Your task to perform on an android device: change notifications settings Image 0: 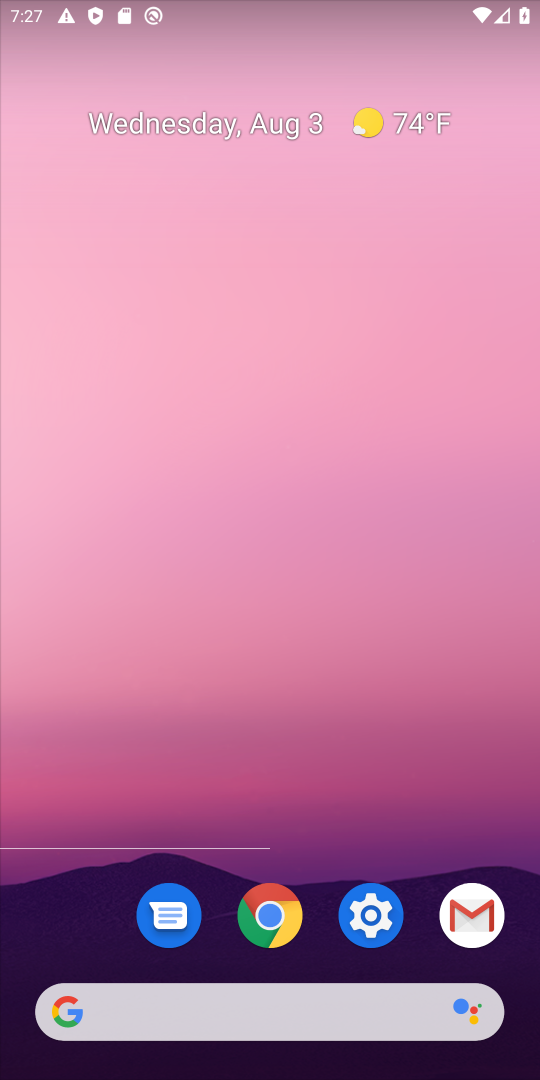
Step 0: press home button
Your task to perform on an android device: change notifications settings Image 1: 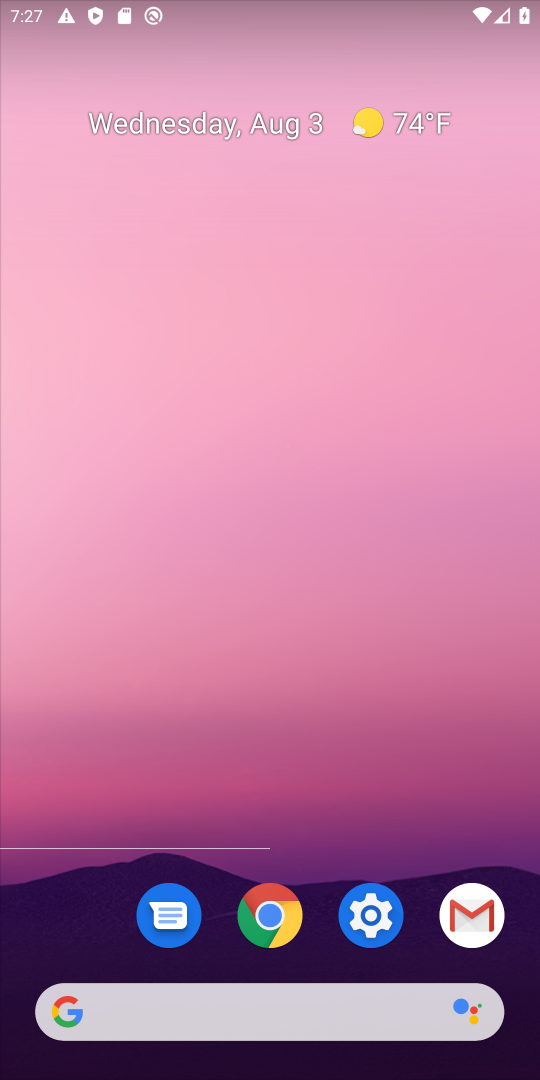
Step 1: click (359, 910)
Your task to perform on an android device: change notifications settings Image 2: 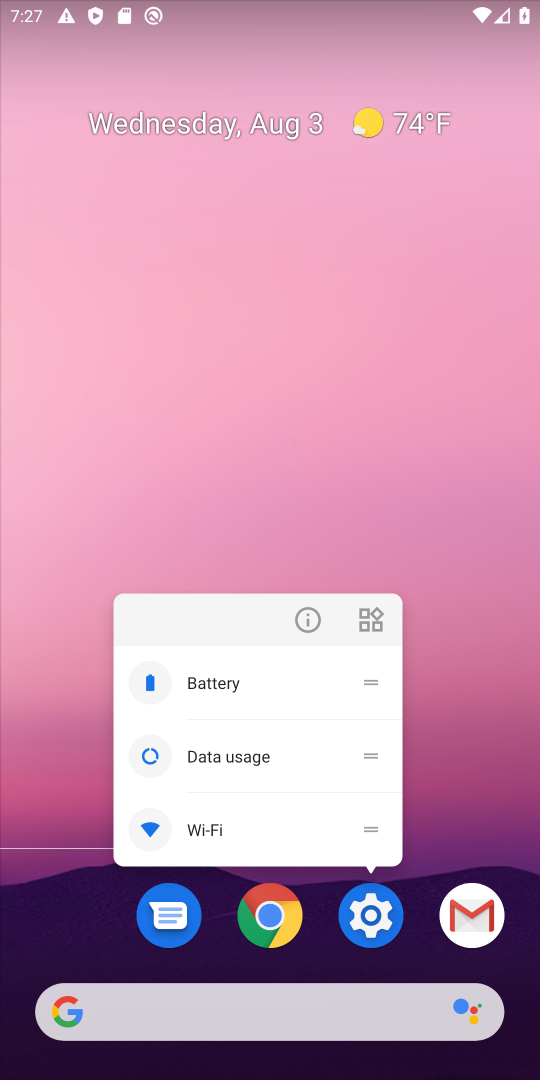
Step 2: drag from (302, 1040) to (310, 251)
Your task to perform on an android device: change notifications settings Image 3: 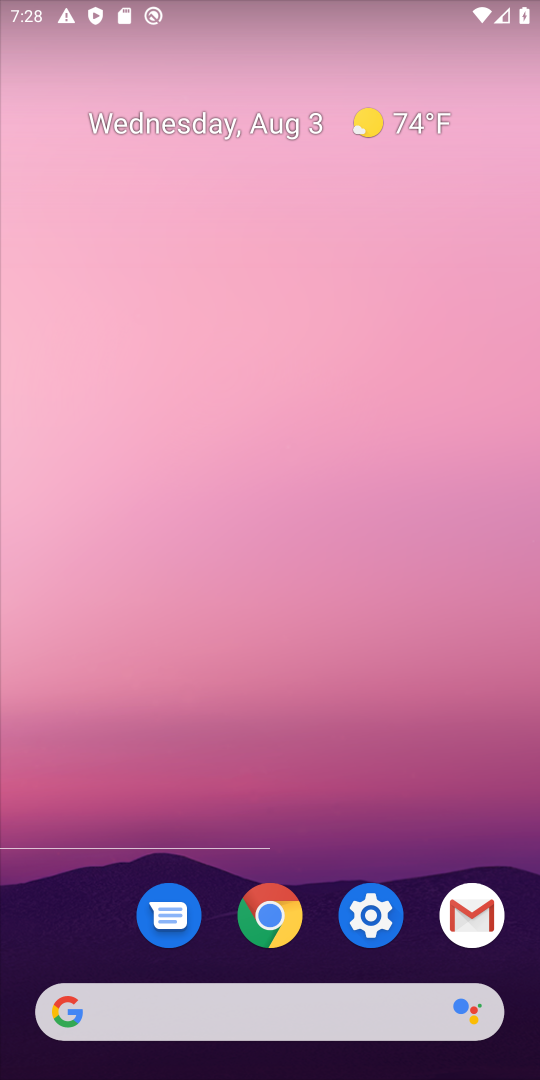
Step 3: drag from (328, 994) to (259, 137)
Your task to perform on an android device: change notifications settings Image 4: 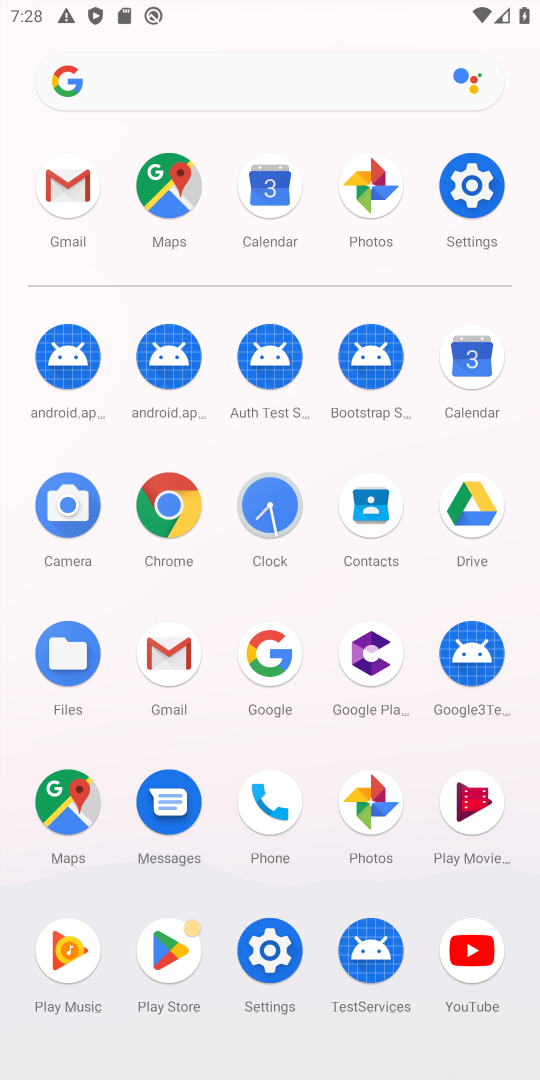
Step 4: click (470, 198)
Your task to perform on an android device: change notifications settings Image 5: 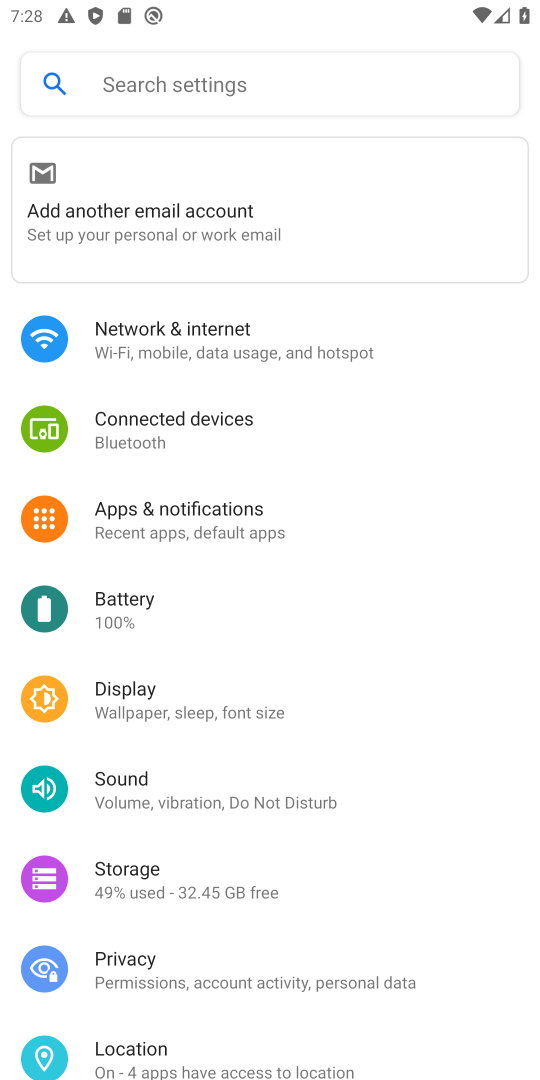
Step 5: click (159, 88)
Your task to perform on an android device: change notifications settings Image 6: 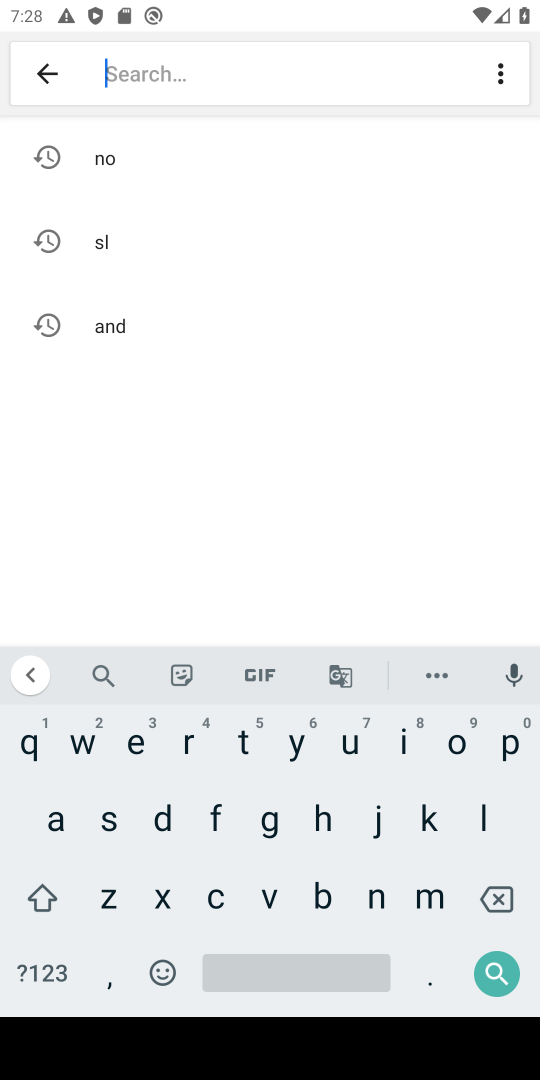
Step 6: click (151, 155)
Your task to perform on an android device: change notifications settings Image 7: 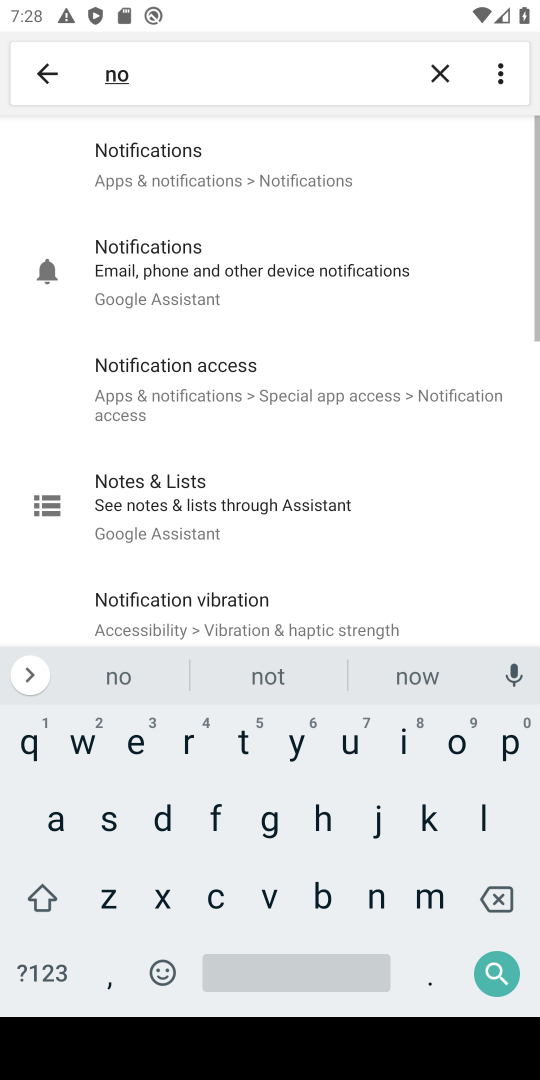
Step 7: click (170, 157)
Your task to perform on an android device: change notifications settings Image 8: 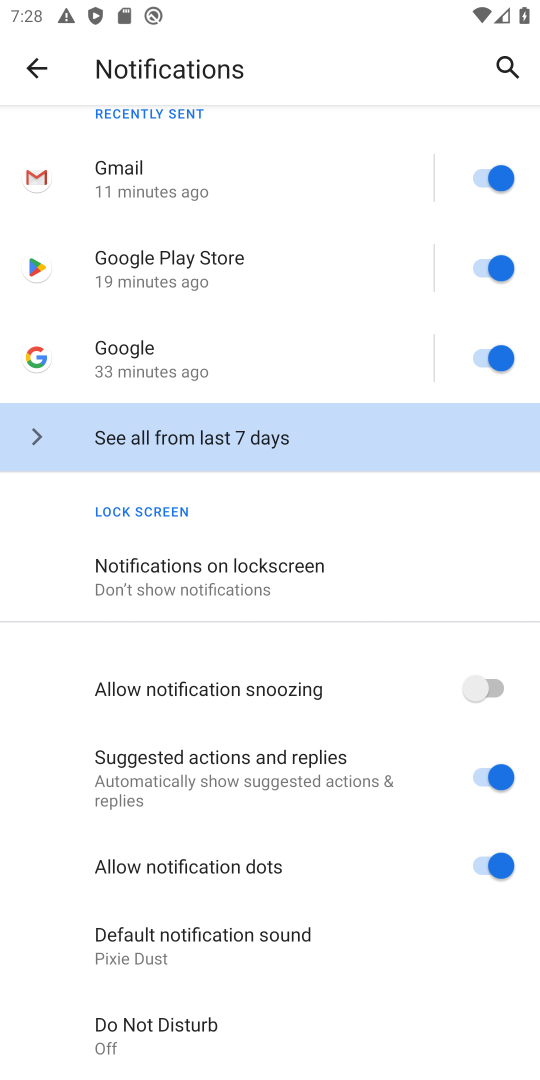
Step 8: click (172, 567)
Your task to perform on an android device: change notifications settings Image 9: 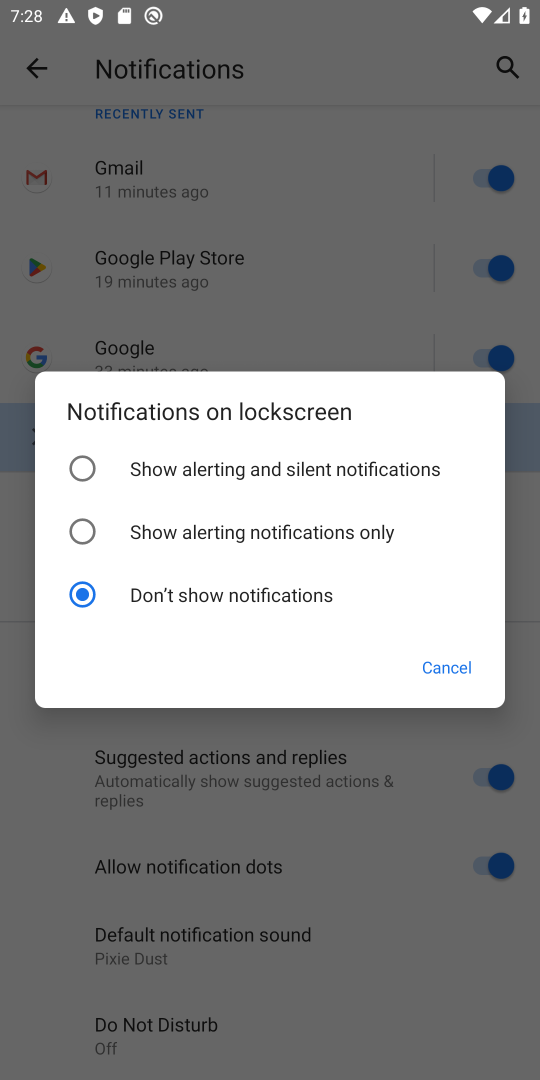
Step 9: click (135, 462)
Your task to perform on an android device: change notifications settings Image 10: 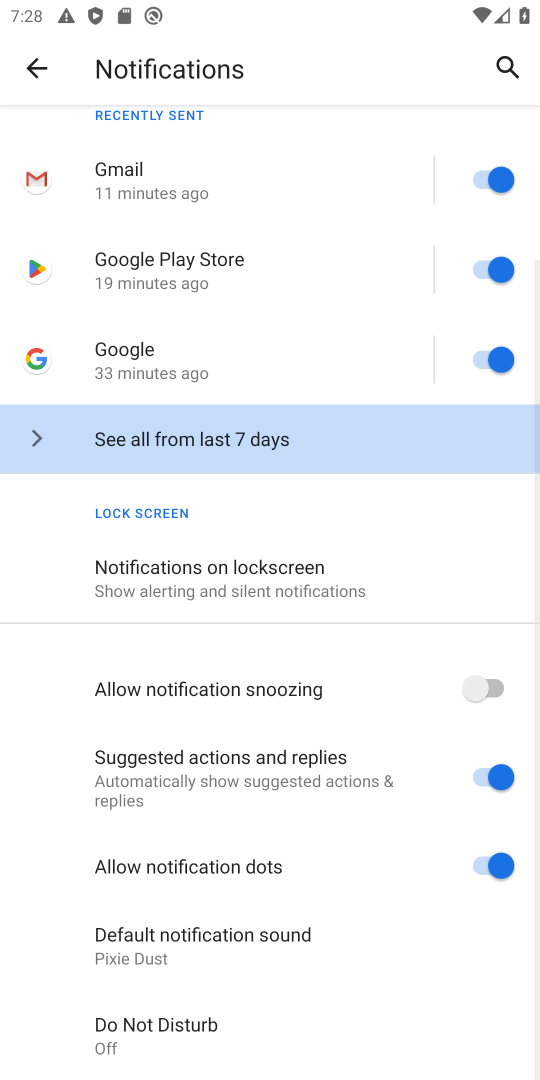
Step 10: task complete